Your task to perform on an android device: toggle show notifications on the lock screen Image 0: 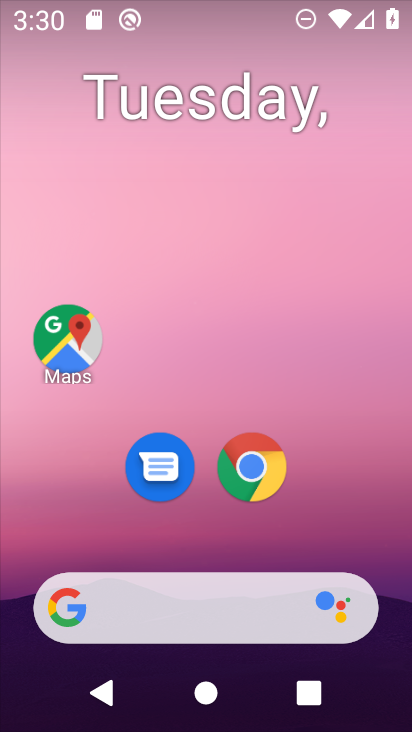
Step 0: drag from (175, 556) to (116, 0)
Your task to perform on an android device: toggle show notifications on the lock screen Image 1: 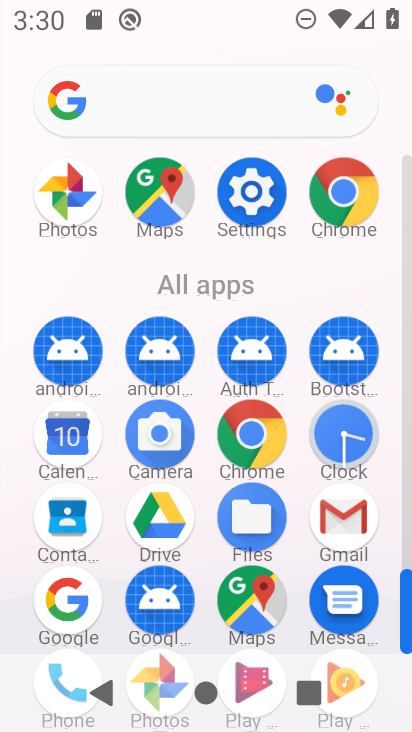
Step 1: click (244, 204)
Your task to perform on an android device: toggle show notifications on the lock screen Image 2: 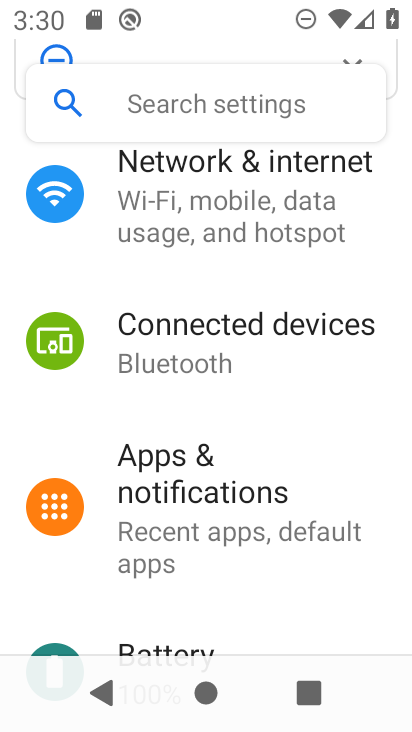
Step 2: click (242, 491)
Your task to perform on an android device: toggle show notifications on the lock screen Image 3: 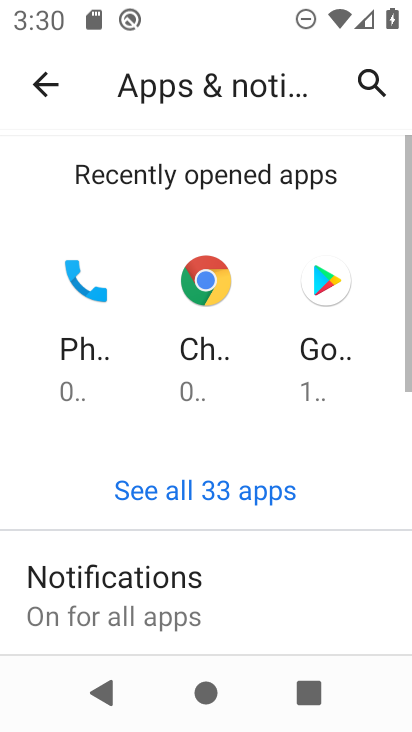
Step 3: click (185, 571)
Your task to perform on an android device: toggle show notifications on the lock screen Image 4: 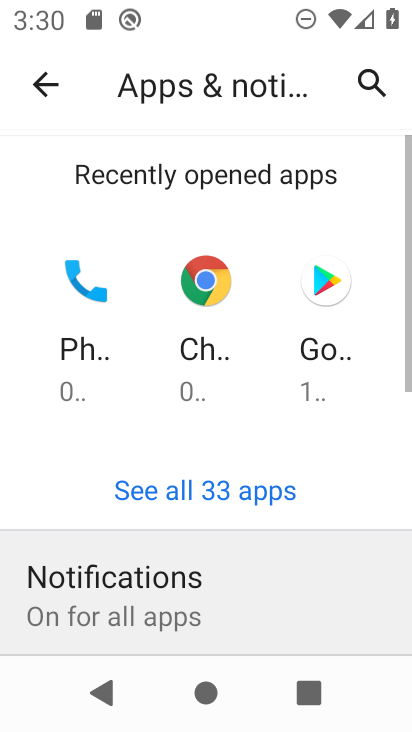
Step 4: drag from (186, 572) to (127, 22)
Your task to perform on an android device: toggle show notifications on the lock screen Image 5: 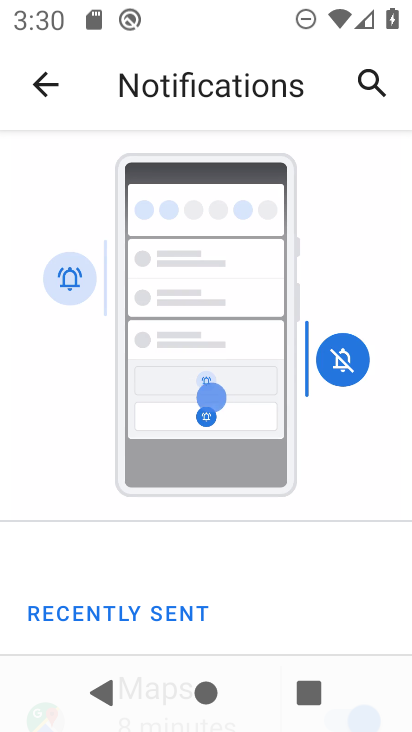
Step 5: drag from (199, 520) to (186, 10)
Your task to perform on an android device: toggle show notifications on the lock screen Image 6: 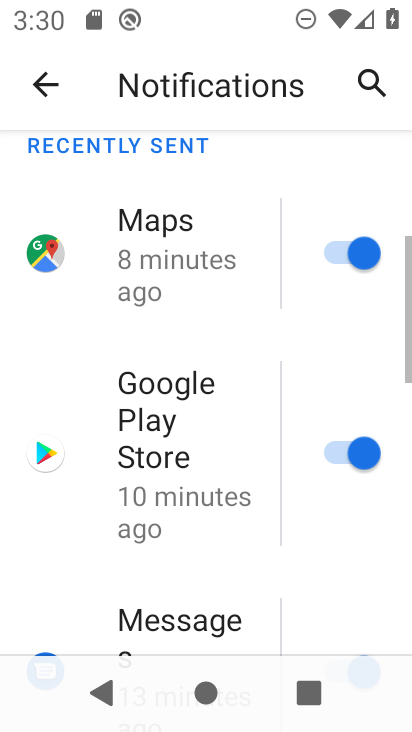
Step 6: drag from (228, 515) to (203, 4)
Your task to perform on an android device: toggle show notifications on the lock screen Image 7: 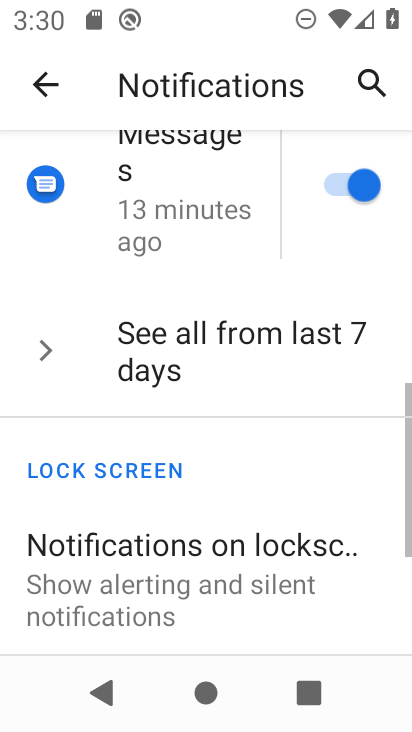
Step 7: click (194, 586)
Your task to perform on an android device: toggle show notifications on the lock screen Image 8: 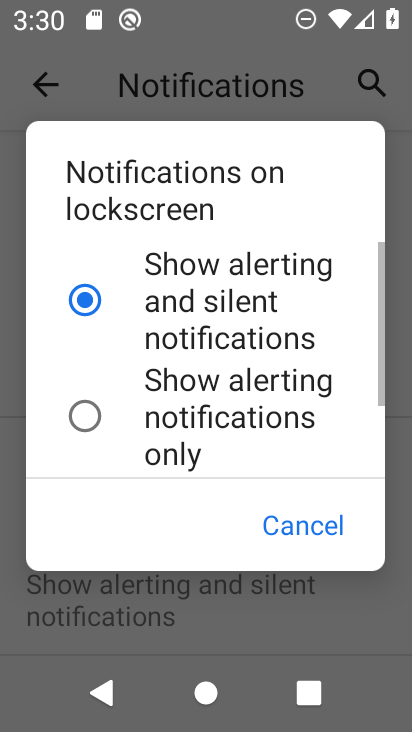
Step 8: task complete